Your task to perform on an android device: Find coffee shops on Maps Image 0: 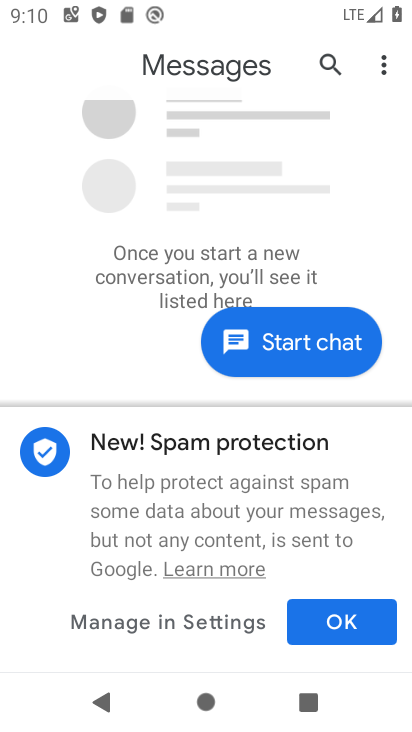
Step 0: press home button
Your task to perform on an android device: Find coffee shops on Maps Image 1: 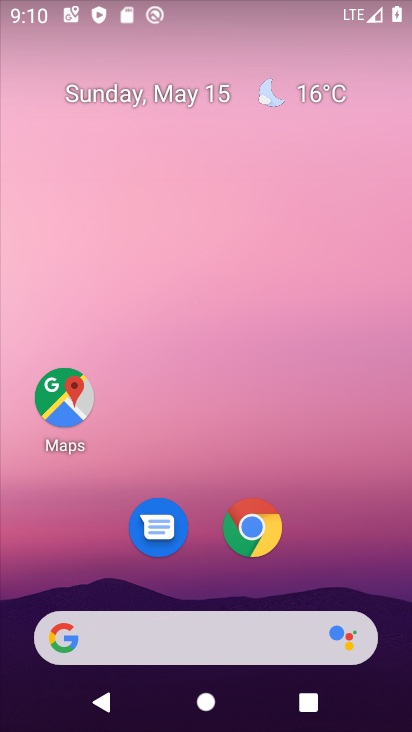
Step 1: click (64, 402)
Your task to perform on an android device: Find coffee shops on Maps Image 2: 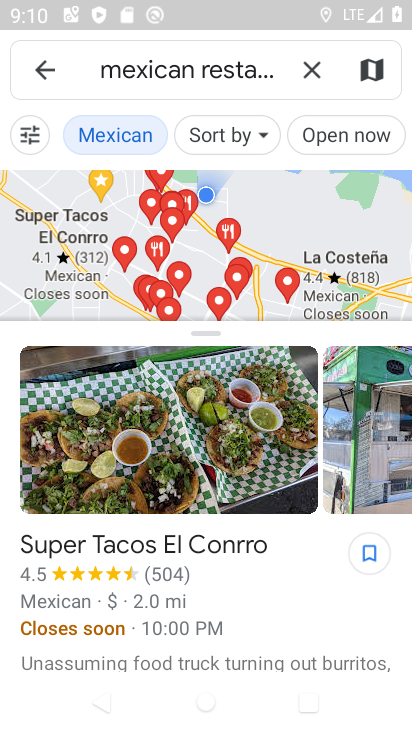
Step 2: click (316, 67)
Your task to perform on an android device: Find coffee shops on Maps Image 3: 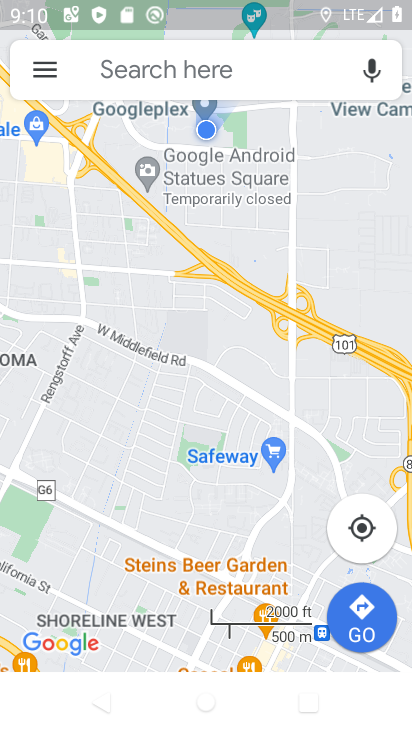
Step 3: click (113, 67)
Your task to perform on an android device: Find coffee shops on Maps Image 4: 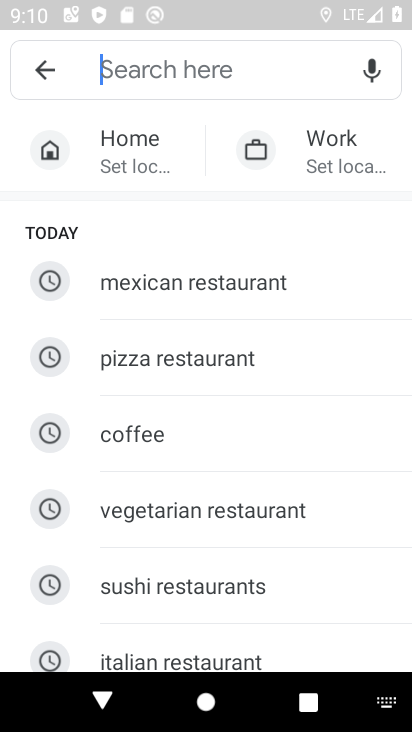
Step 4: type "coffee shop"
Your task to perform on an android device: Find coffee shops on Maps Image 5: 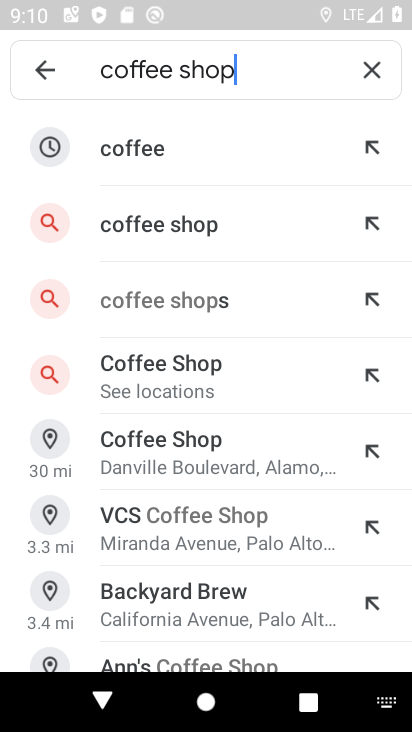
Step 5: click (168, 221)
Your task to perform on an android device: Find coffee shops on Maps Image 6: 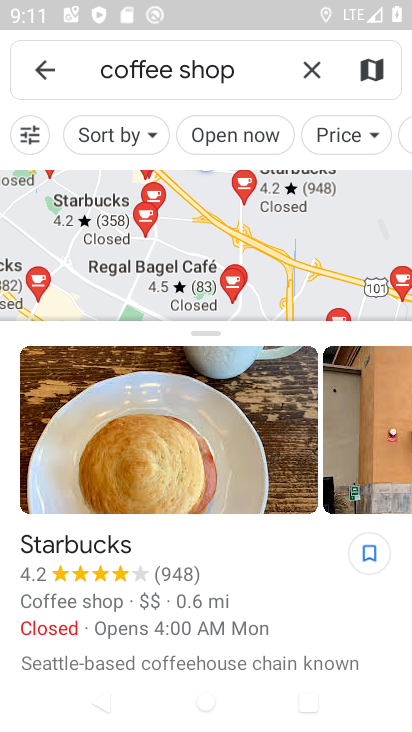
Step 6: task complete